Your task to perform on an android device: change text size in settings app Image 0: 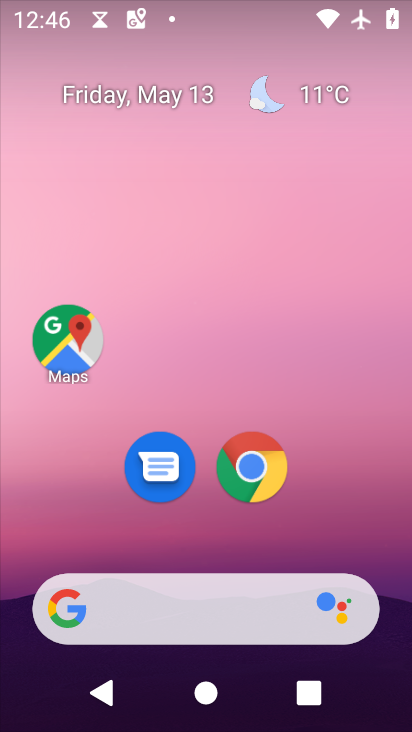
Step 0: drag from (327, 442) to (183, 59)
Your task to perform on an android device: change text size in settings app Image 1: 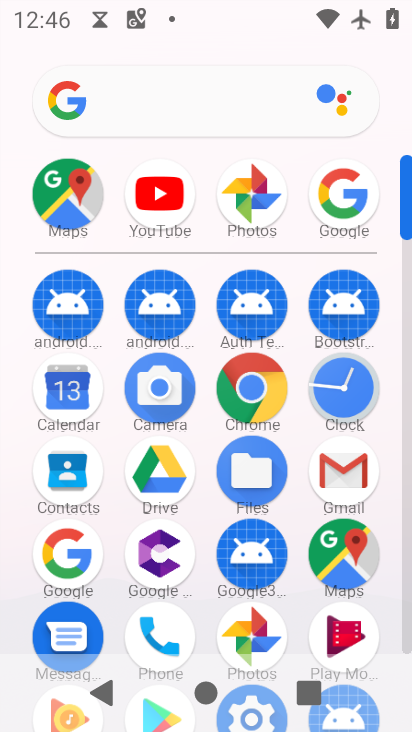
Step 1: drag from (208, 407) to (200, 176)
Your task to perform on an android device: change text size in settings app Image 2: 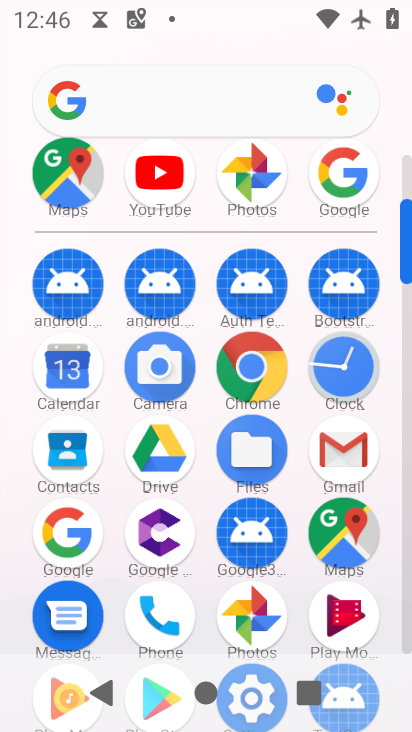
Step 2: drag from (198, 640) to (181, 211)
Your task to perform on an android device: change text size in settings app Image 3: 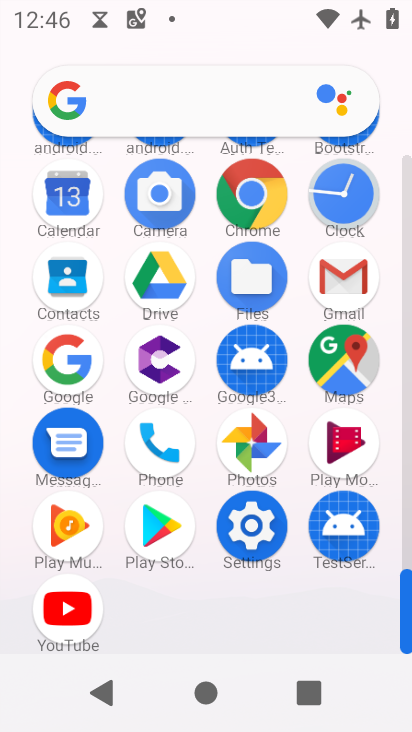
Step 3: click (254, 514)
Your task to perform on an android device: change text size in settings app Image 4: 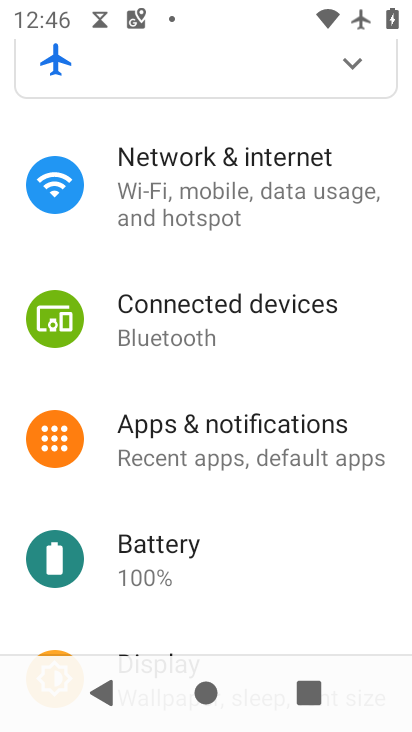
Step 4: drag from (188, 270) to (175, 188)
Your task to perform on an android device: change text size in settings app Image 5: 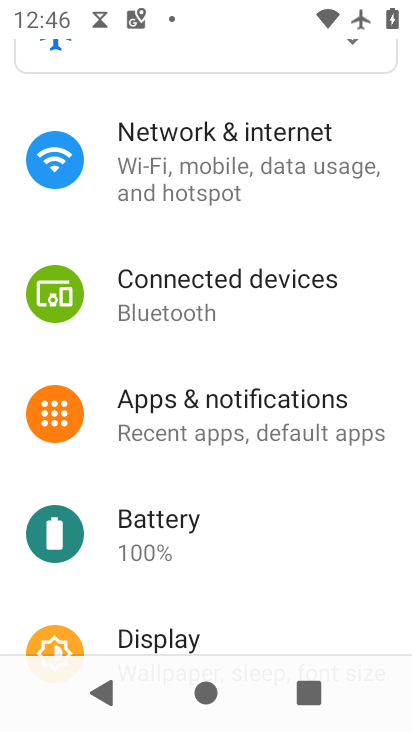
Step 5: click (209, 631)
Your task to perform on an android device: change text size in settings app Image 6: 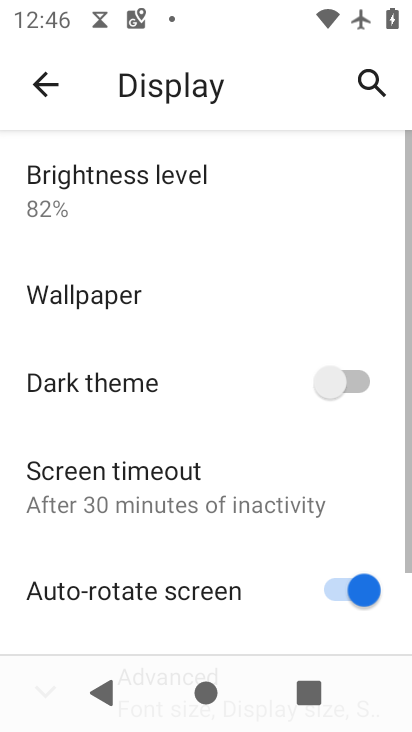
Step 6: drag from (184, 452) to (171, 181)
Your task to perform on an android device: change text size in settings app Image 7: 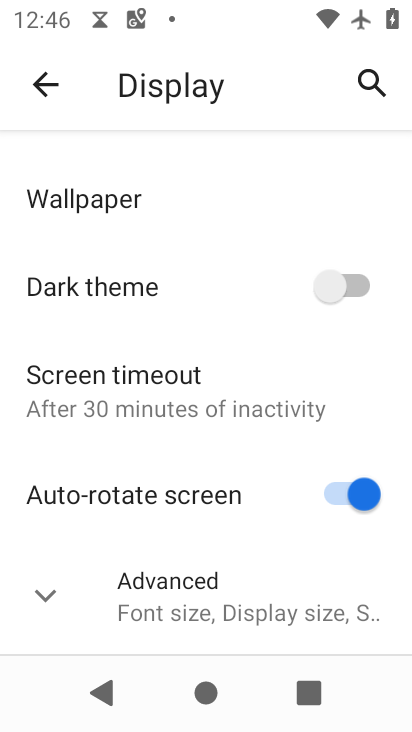
Step 7: click (183, 600)
Your task to perform on an android device: change text size in settings app Image 8: 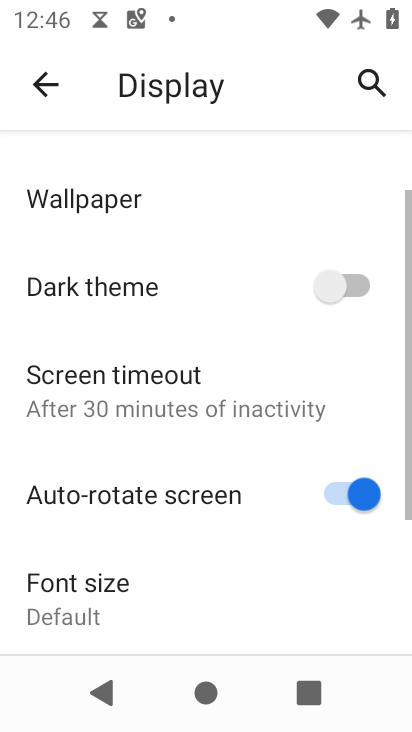
Step 8: click (156, 604)
Your task to perform on an android device: change text size in settings app Image 9: 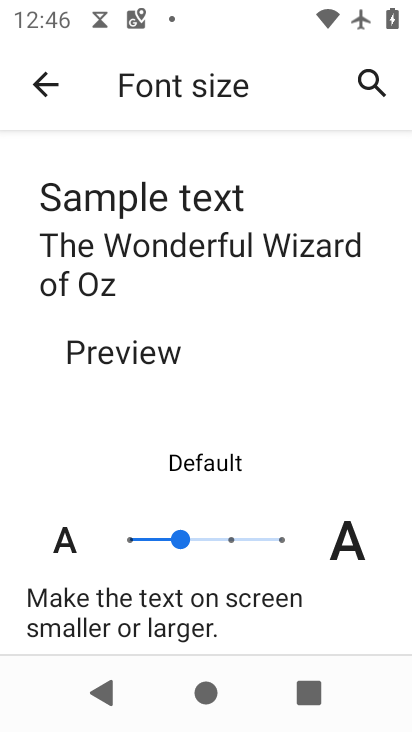
Step 9: click (129, 538)
Your task to perform on an android device: change text size in settings app Image 10: 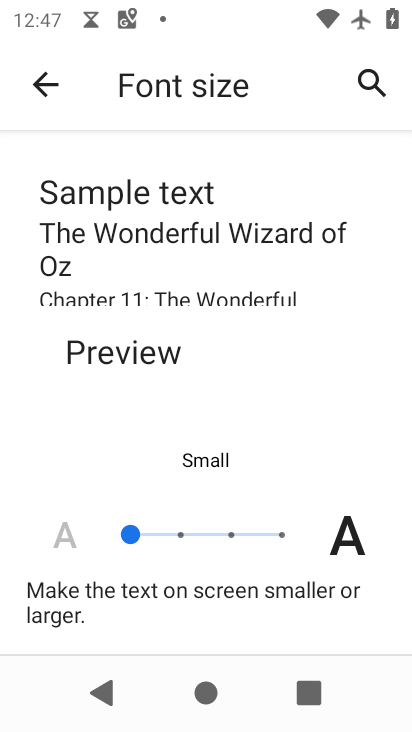
Step 10: task complete